Your task to perform on an android device: toggle translation in the chrome app Image 0: 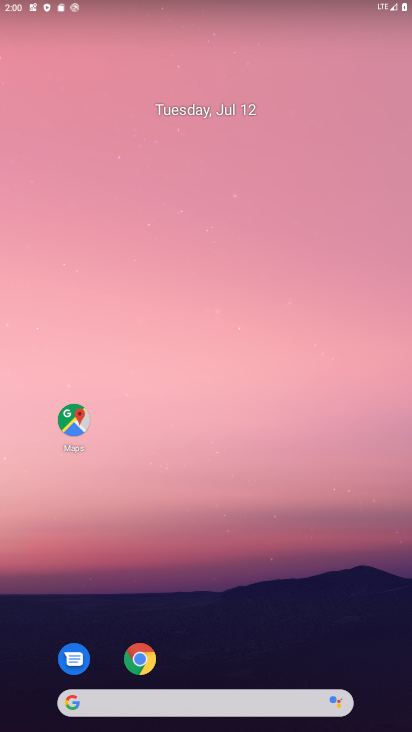
Step 0: click (137, 660)
Your task to perform on an android device: toggle translation in the chrome app Image 1: 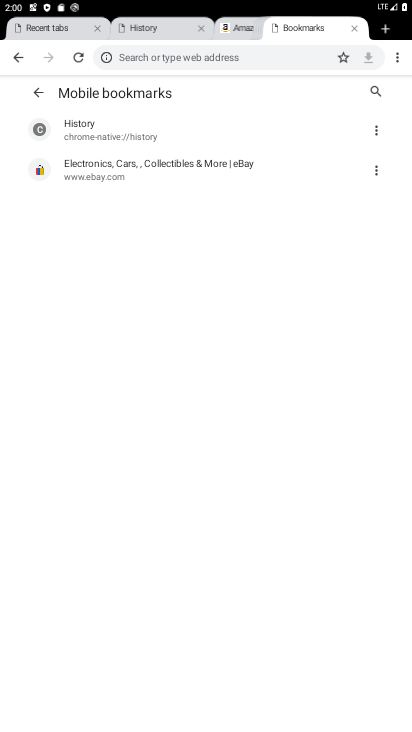
Step 1: click (396, 60)
Your task to perform on an android device: toggle translation in the chrome app Image 2: 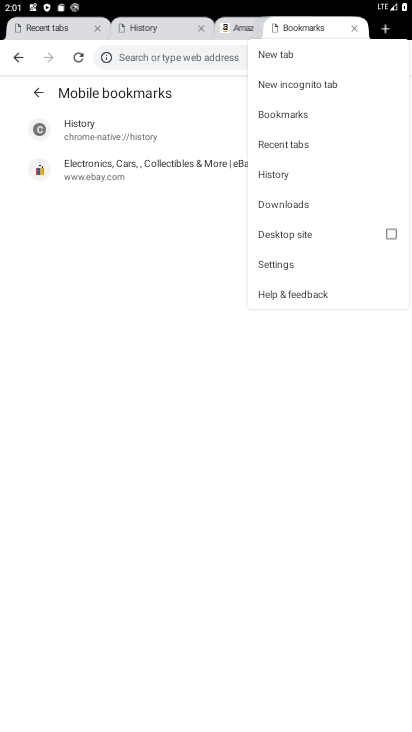
Step 2: click (277, 263)
Your task to perform on an android device: toggle translation in the chrome app Image 3: 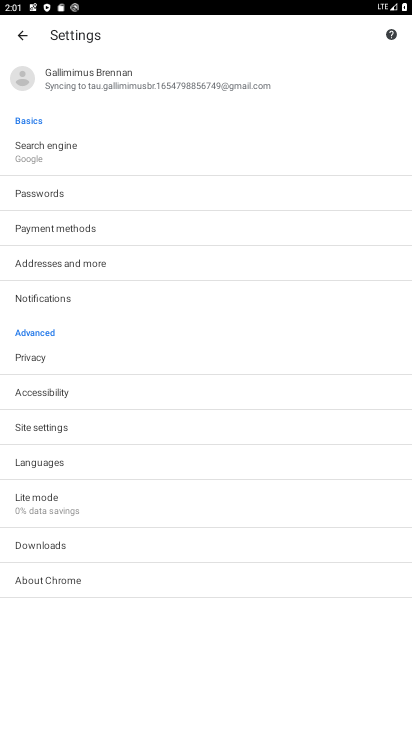
Step 3: click (47, 463)
Your task to perform on an android device: toggle translation in the chrome app Image 4: 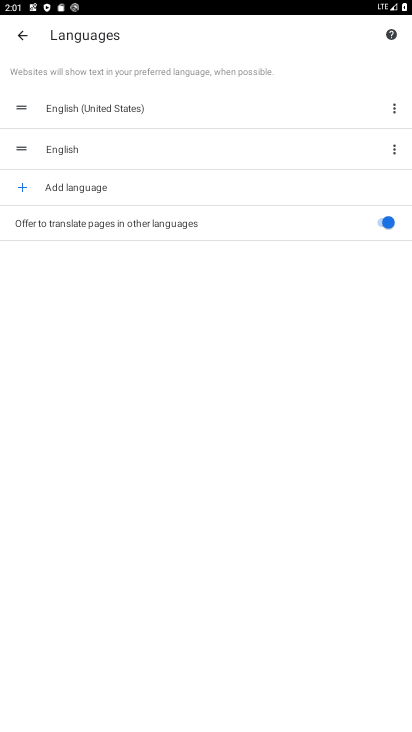
Step 4: click (389, 222)
Your task to perform on an android device: toggle translation in the chrome app Image 5: 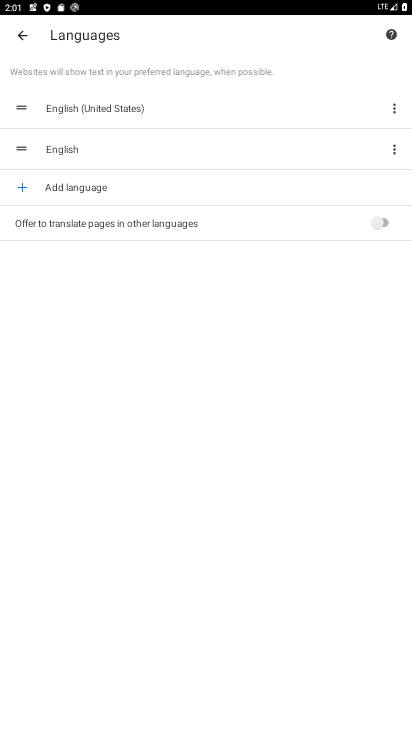
Step 5: task complete